Your task to perform on an android device: Go to accessibility settings Image 0: 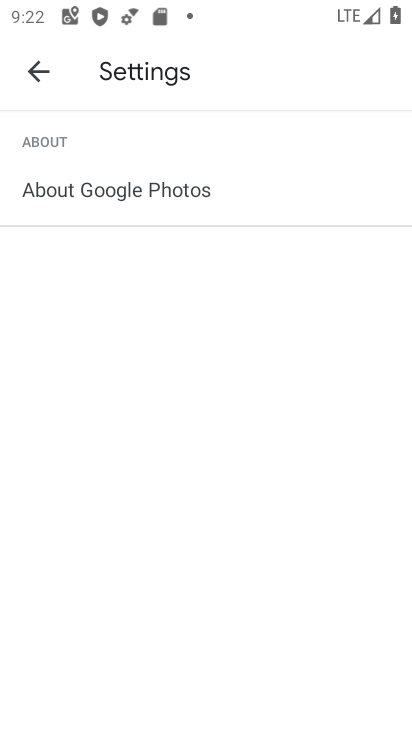
Step 0: press home button
Your task to perform on an android device: Go to accessibility settings Image 1: 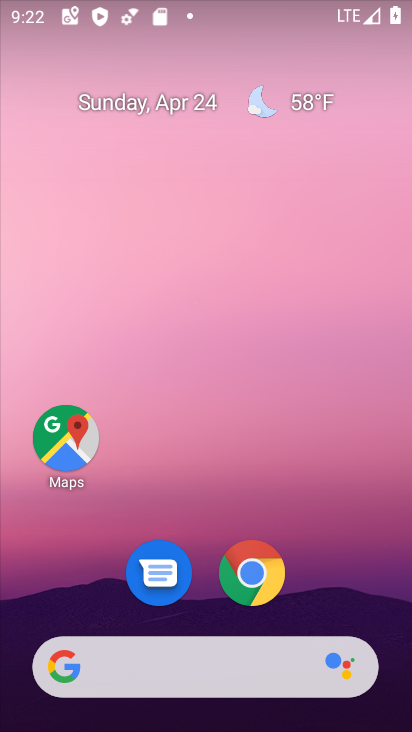
Step 1: drag from (333, 619) to (360, 194)
Your task to perform on an android device: Go to accessibility settings Image 2: 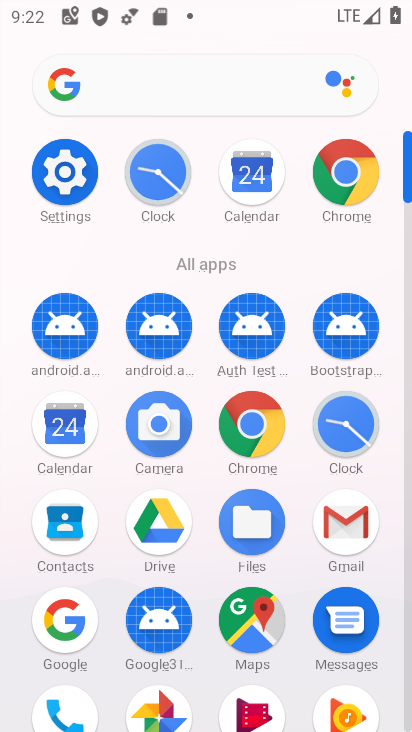
Step 2: click (59, 165)
Your task to perform on an android device: Go to accessibility settings Image 3: 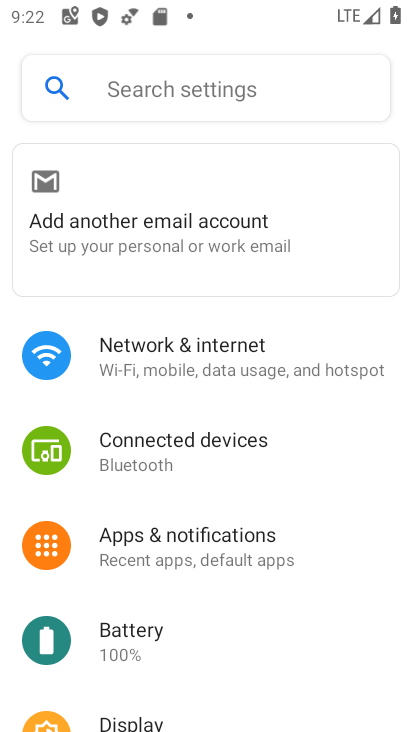
Step 3: drag from (210, 613) to (245, 159)
Your task to perform on an android device: Go to accessibility settings Image 4: 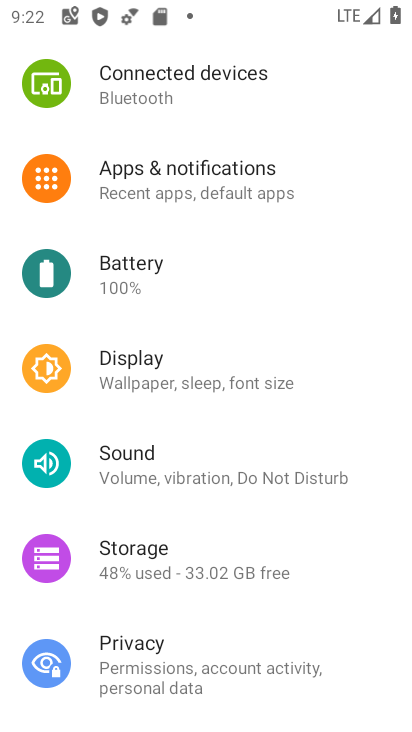
Step 4: drag from (255, 626) to (312, 240)
Your task to perform on an android device: Go to accessibility settings Image 5: 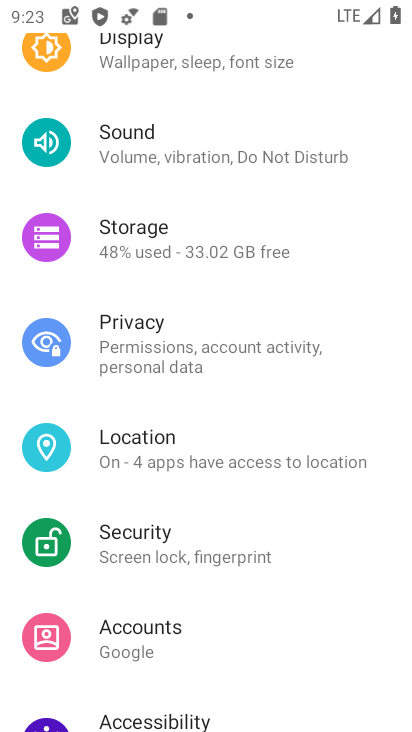
Step 5: drag from (269, 667) to (325, 296)
Your task to perform on an android device: Go to accessibility settings Image 6: 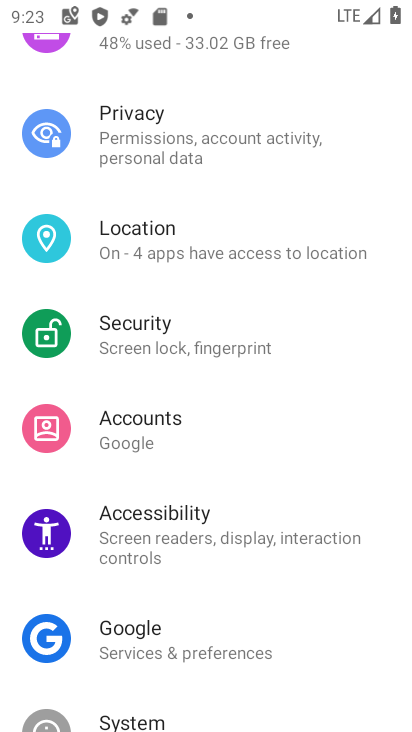
Step 6: drag from (302, 665) to (347, 336)
Your task to perform on an android device: Go to accessibility settings Image 7: 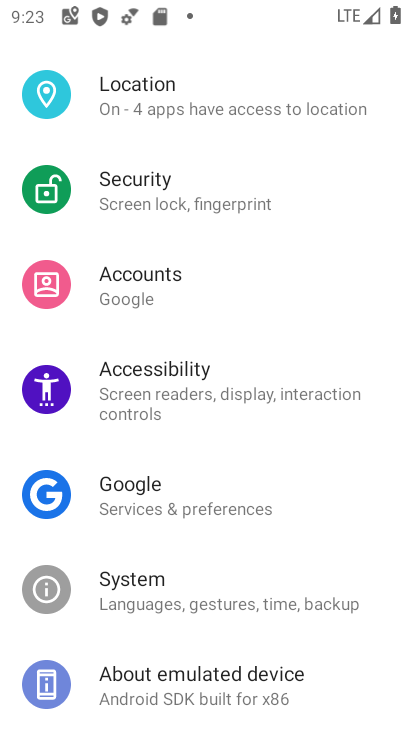
Step 7: click (210, 396)
Your task to perform on an android device: Go to accessibility settings Image 8: 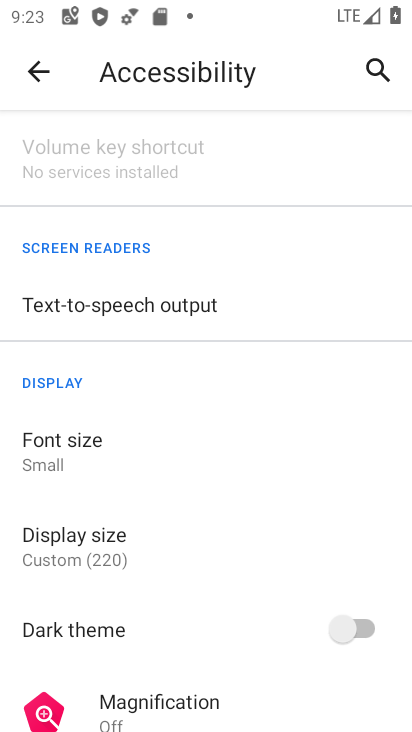
Step 8: task complete